Your task to perform on an android device: Open Yahoo.com Image 0: 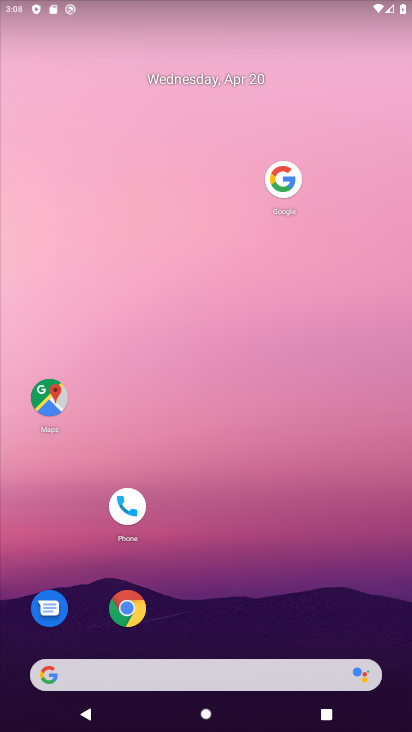
Step 0: click (137, 601)
Your task to perform on an android device: Open Yahoo.com Image 1: 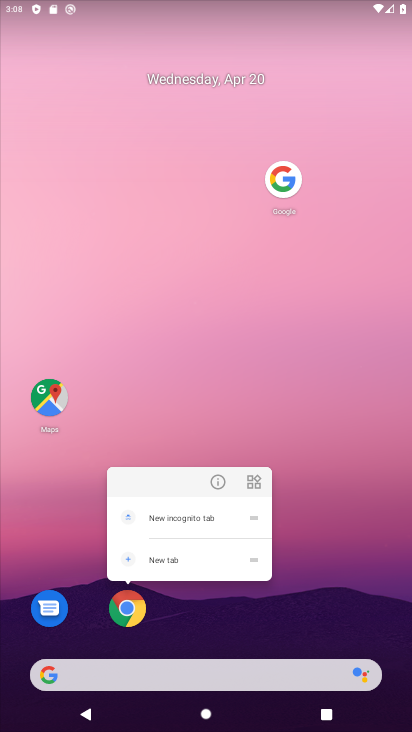
Step 1: click (124, 607)
Your task to perform on an android device: Open Yahoo.com Image 2: 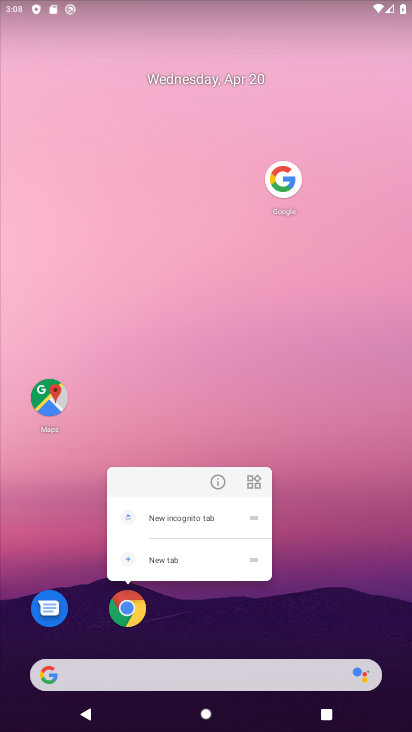
Step 2: click (125, 606)
Your task to perform on an android device: Open Yahoo.com Image 3: 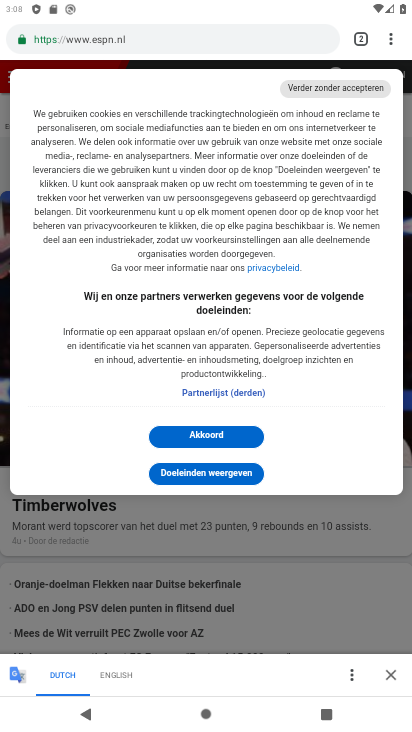
Step 3: click (288, 41)
Your task to perform on an android device: Open Yahoo.com Image 4: 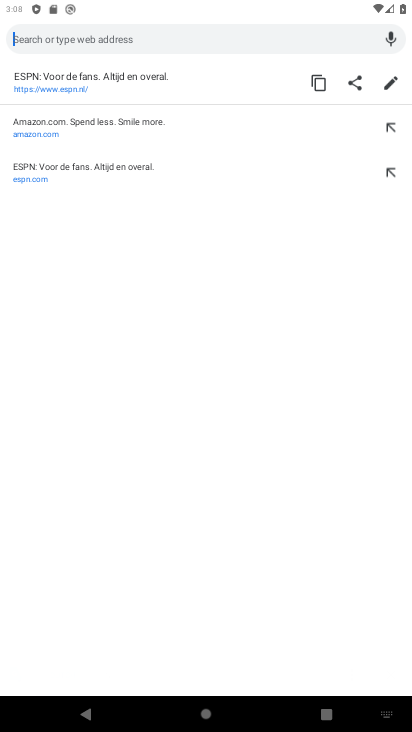
Step 4: type "yahii.com"
Your task to perform on an android device: Open Yahoo.com Image 5: 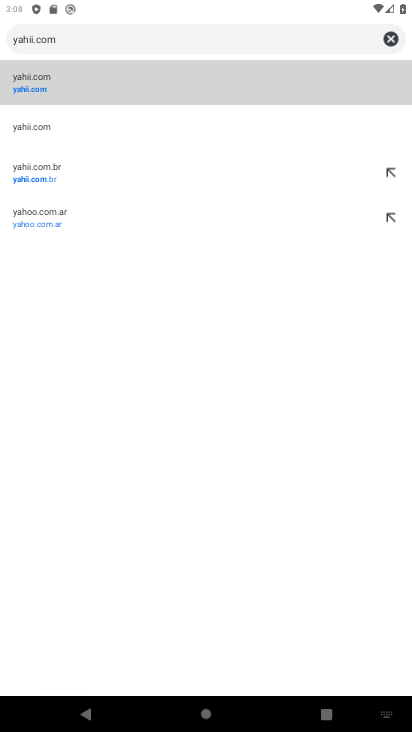
Step 5: click (72, 77)
Your task to perform on an android device: Open Yahoo.com Image 6: 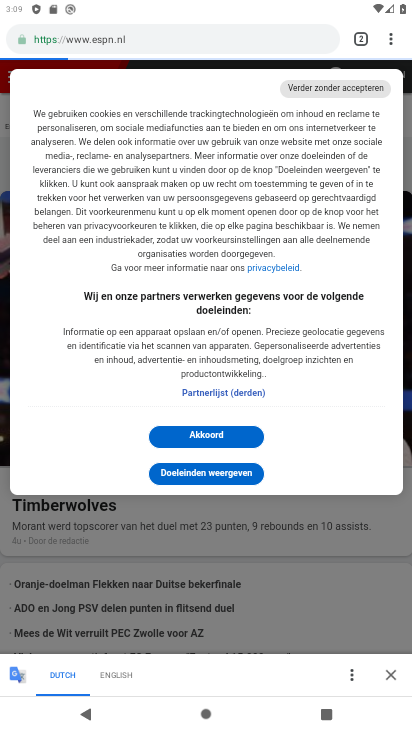
Step 6: click (172, 41)
Your task to perform on an android device: Open Yahoo.com Image 7: 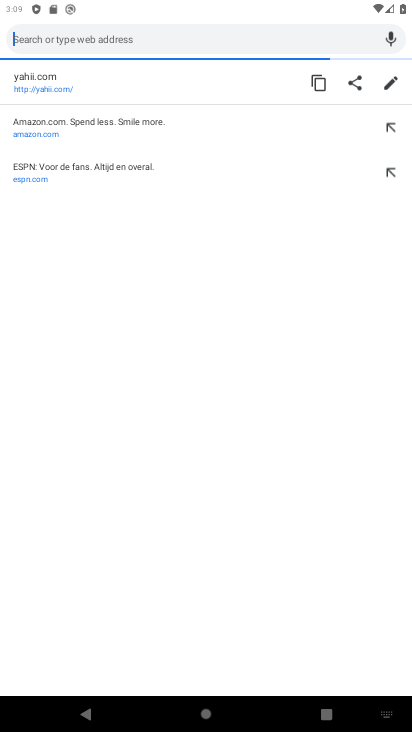
Step 7: type "yahoo.com"
Your task to perform on an android device: Open Yahoo.com Image 8: 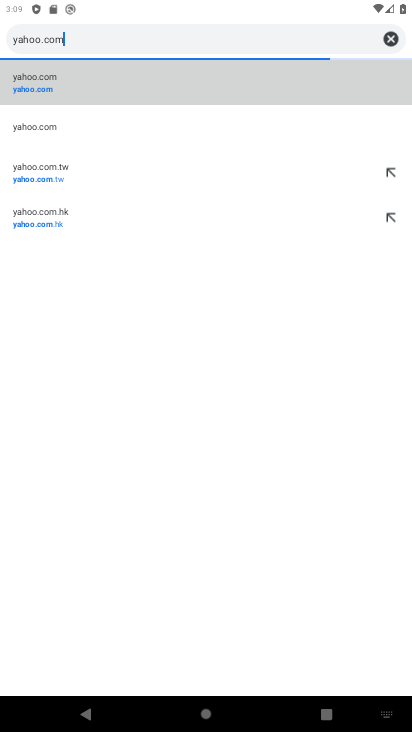
Step 8: click (28, 84)
Your task to perform on an android device: Open Yahoo.com Image 9: 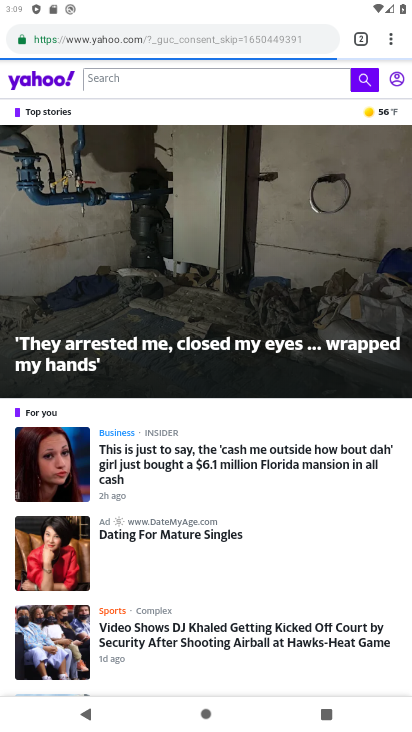
Step 9: task complete